Your task to perform on an android device: turn on the 24-hour format for clock Image 0: 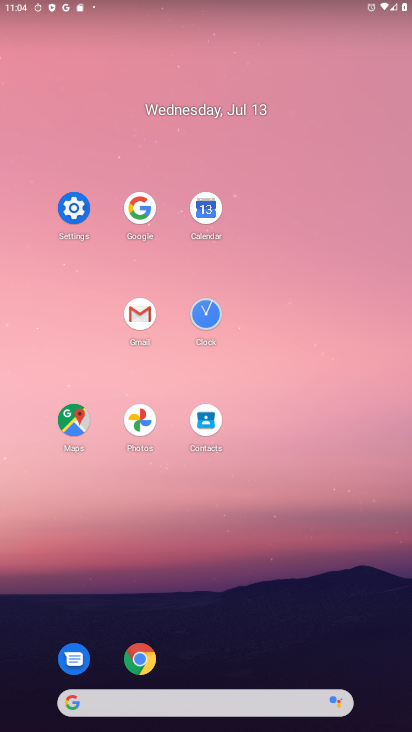
Step 0: click (214, 299)
Your task to perform on an android device: turn on the 24-hour format for clock Image 1: 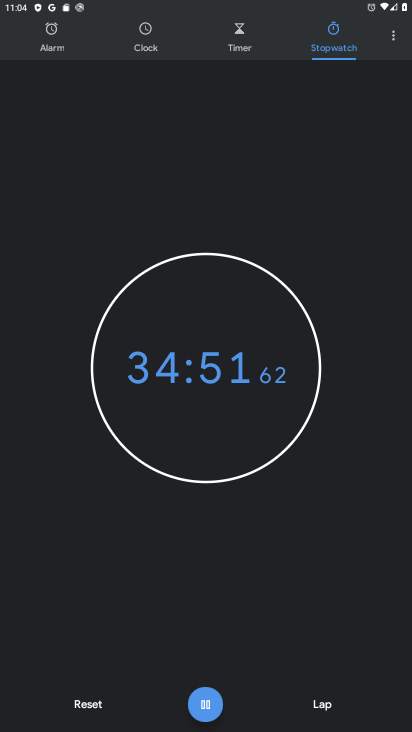
Step 1: click (390, 34)
Your task to perform on an android device: turn on the 24-hour format for clock Image 2: 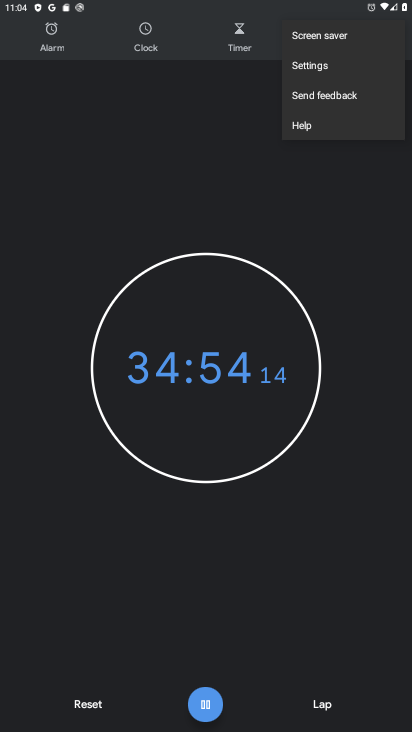
Step 2: click (334, 70)
Your task to perform on an android device: turn on the 24-hour format for clock Image 3: 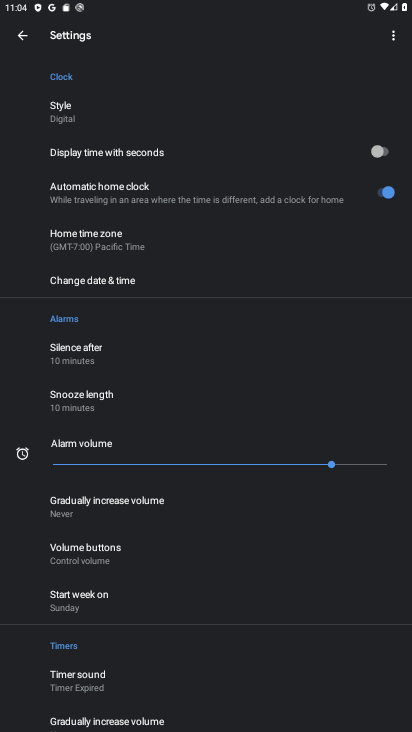
Step 3: click (128, 283)
Your task to perform on an android device: turn on the 24-hour format for clock Image 4: 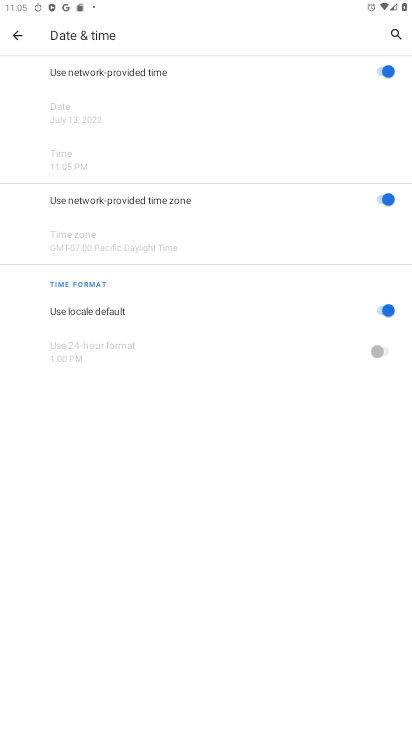
Step 4: click (377, 304)
Your task to perform on an android device: turn on the 24-hour format for clock Image 5: 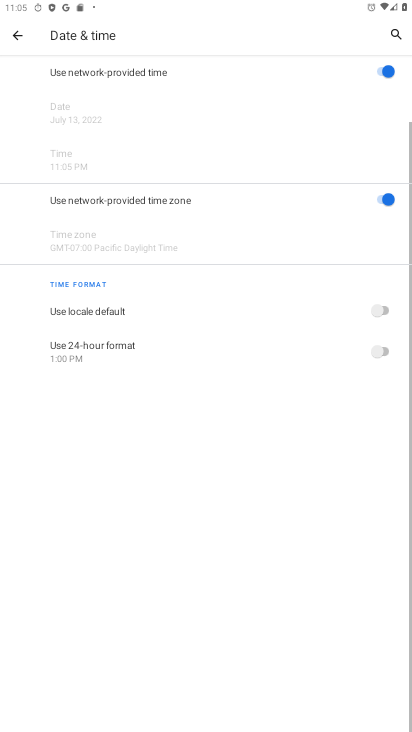
Step 5: click (393, 356)
Your task to perform on an android device: turn on the 24-hour format for clock Image 6: 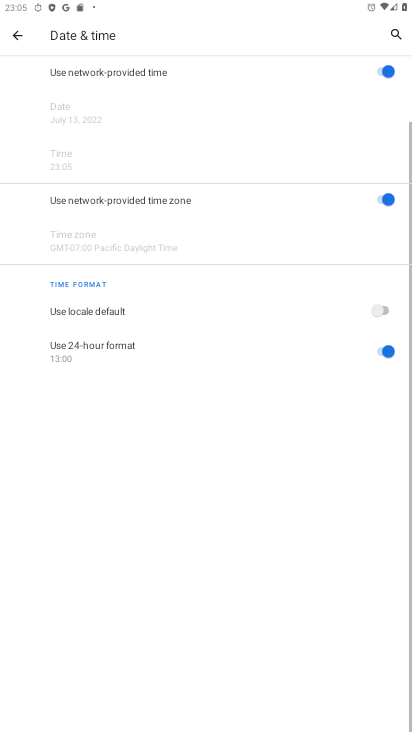
Step 6: task complete